Your task to perform on an android device: install app "Upside-Cash back on gas & food" Image 0: 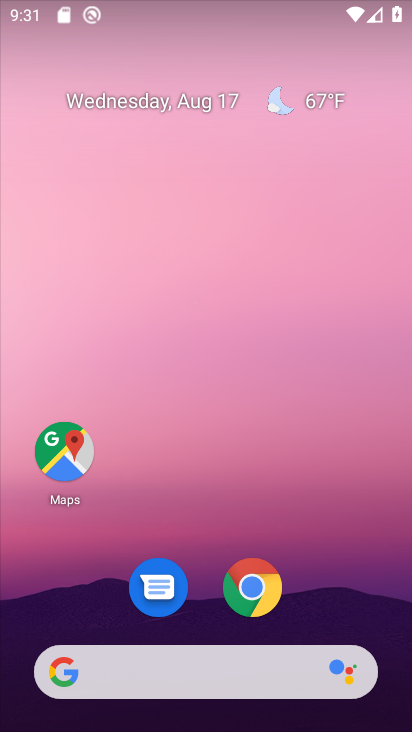
Step 0: drag from (205, 439) to (192, 7)
Your task to perform on an android device: install app "Upside-Cash back on gas & food" Image 1: 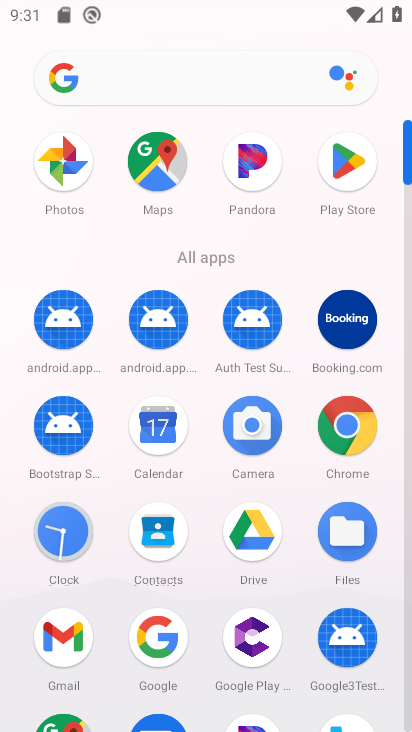
Step 1: click (351, 162)
Your task to perform on an android device: install app "Upside-Cash back on gas & food" Image 2: 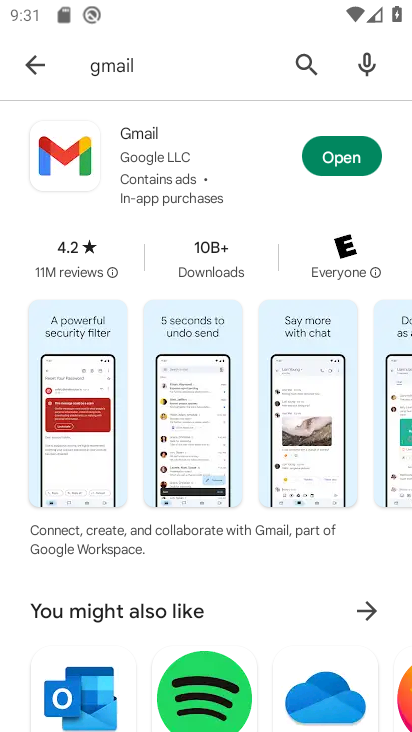
Step 2: click (36, 62)
Your task to perform on an android device: install app "Upside-Cash back on gas & food" Image 3: 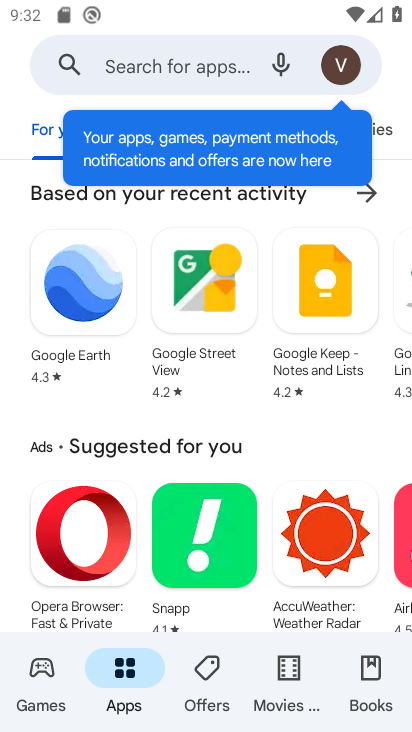
Step 3: type "Upside-Cash back on gas & food"
Your task to perform on an android device: install app "Upside-Cash back on gas & food" Image 4: 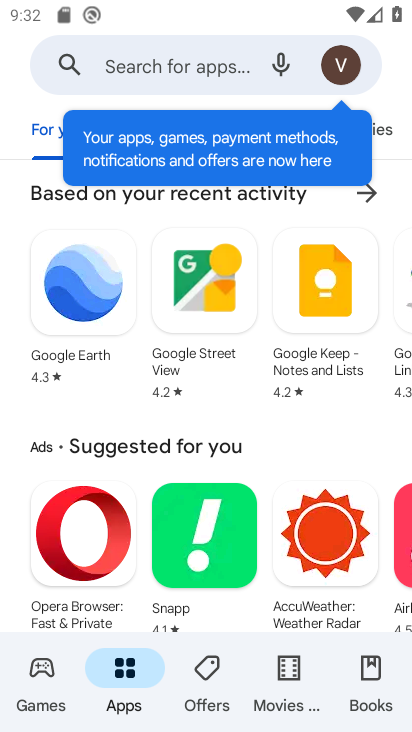
Step 4: click (160, 61)
Your task to perform on an android device: install app "Upside-Cash back on gas & food" Image 5: 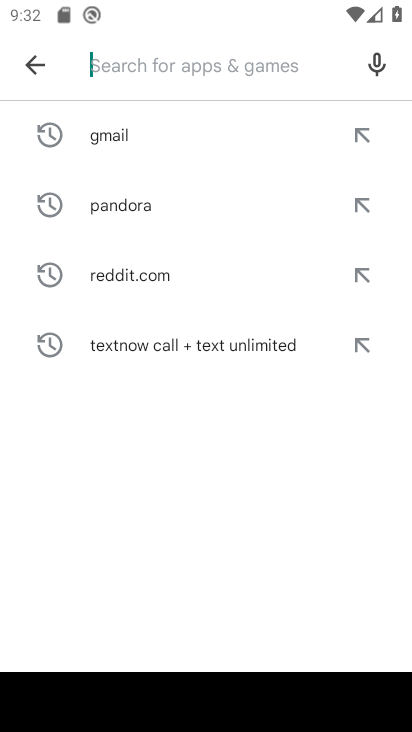
Step 5: type "Upside-Cash back on gas & food"
Your task to perform on an android device: install app "Upside-Cash back on gas & food" Image 6: 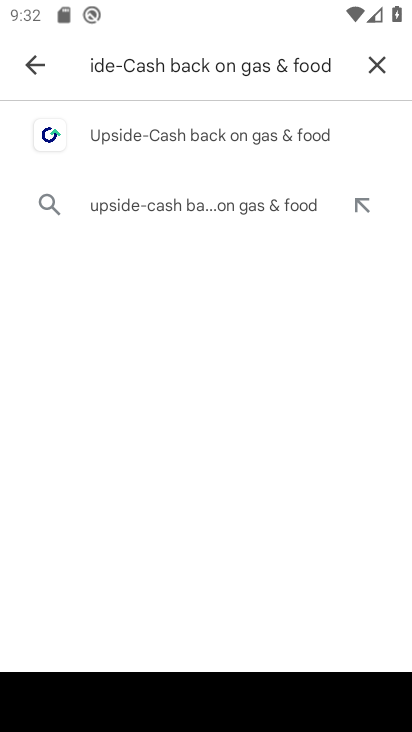
Step 6: click (257, 136)
Your task to perform on an android device: install app "Upside-Cash back on gas & food" Image 7: 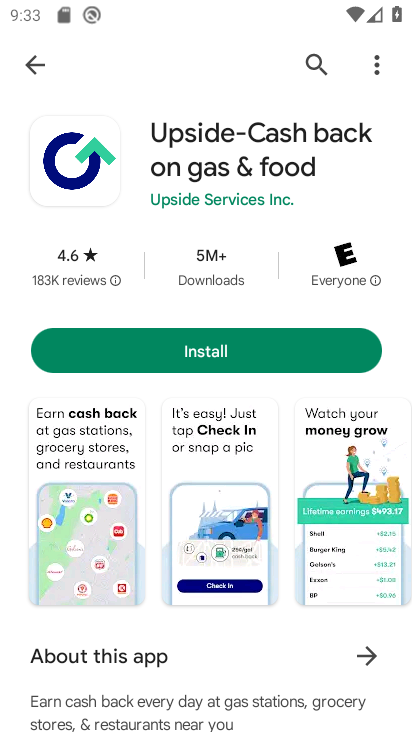
Step 7: click (187, 342)
Your task to perform on an android device: install app "Upside-Cash back on gas & food" Image 8: 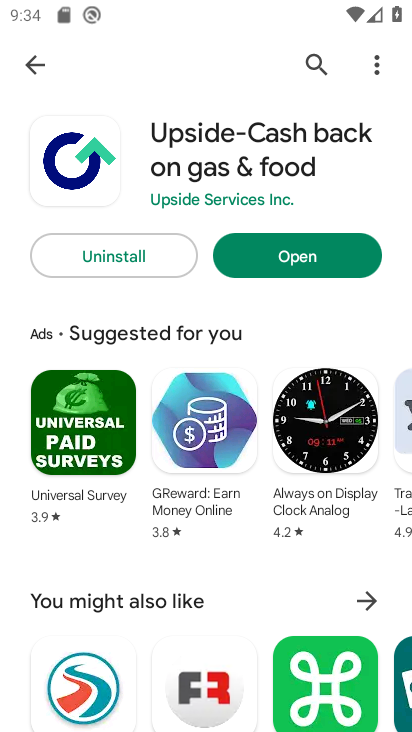
Step 8: task complete